Your task to perform on an android device: Open settings on Google Maps Image 0: 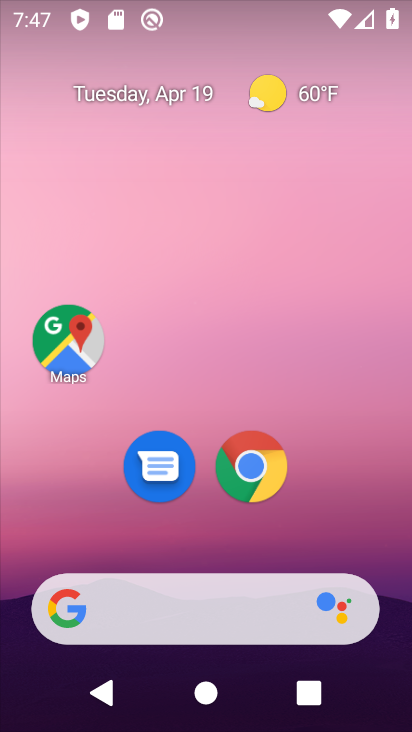
Step 0: drag from (270, 539) to (330, 175)
Your task to perform on an android device: Open settings on Google Maps Image 1: 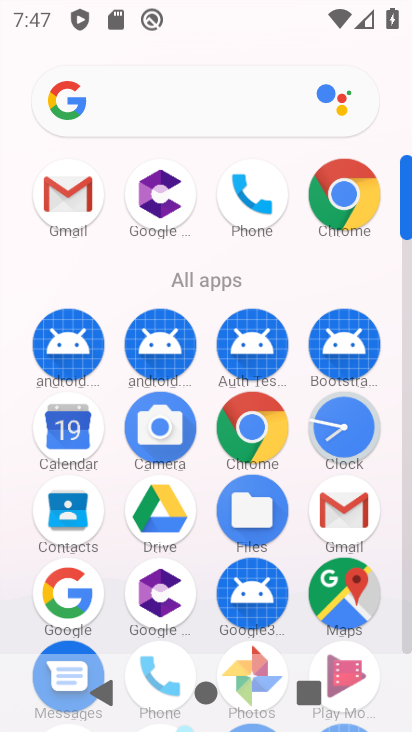
Step 1: click (348, 593)
Your task to perform on an android device: Open settings on Google Maps Image 2: 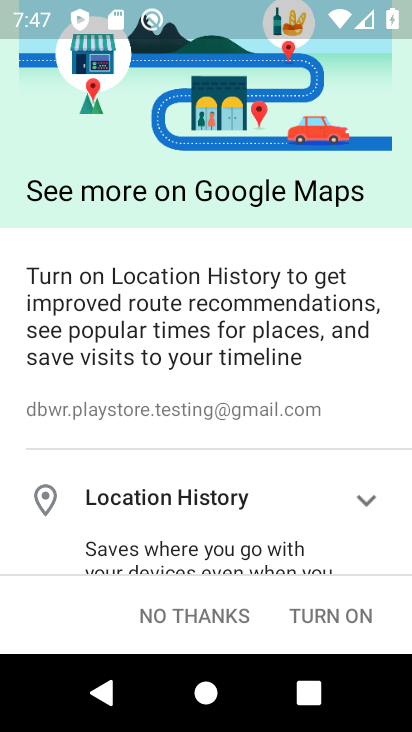
Step 2: click (179, 612)
Your task to perform on an android device: Open settings on Google Maps Image 3: 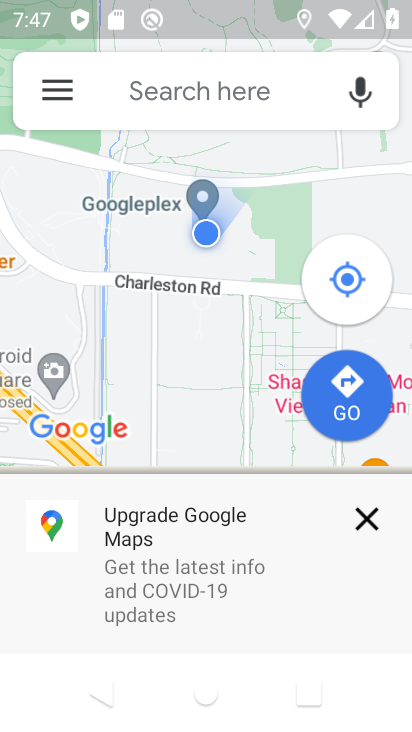
Step 3: click (51, 90)
Your task to perform on an android device: Open settings on Google Maps Image 4: 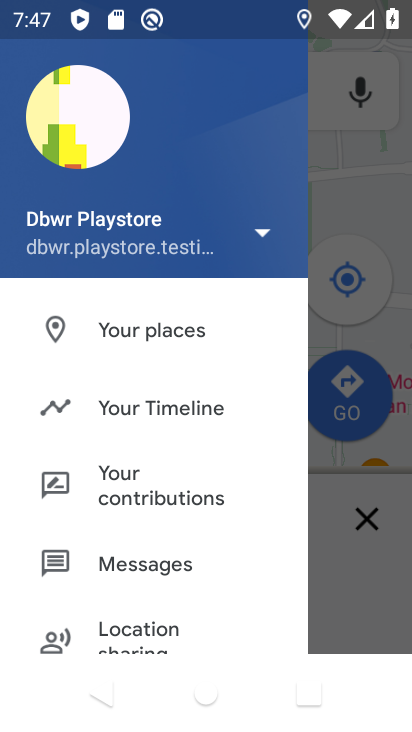
Step 4: drag from (177, 600) to (217, 97)
Your task to perform on an android device: Open settings on Google Maps Image 5: 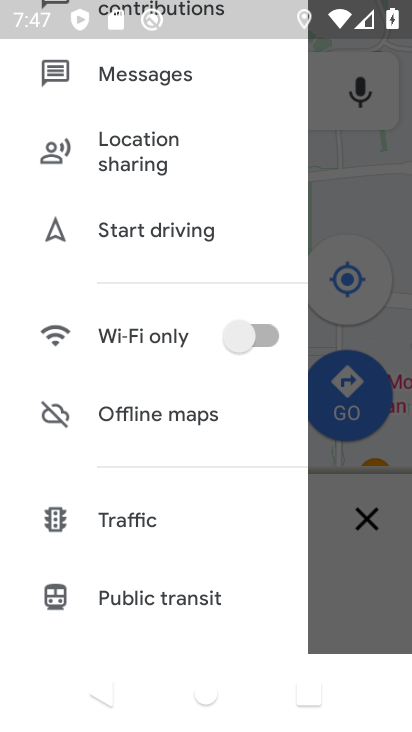
Step 5: drag from (146, 538) to (147, 73)
Your task to perform on an android device: Open settings on Google Maps Image 6: 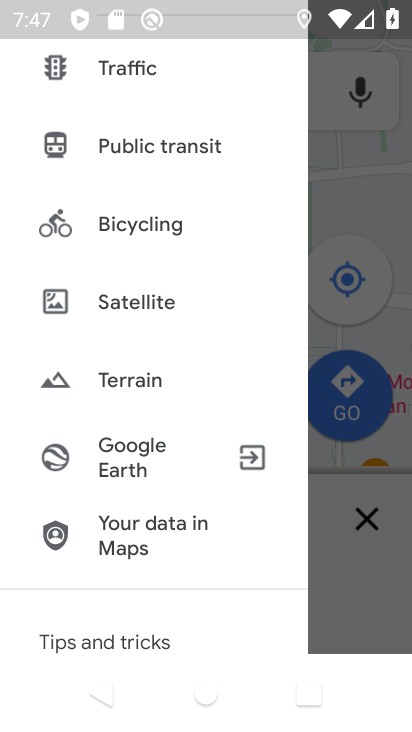
Step 6: drag from (101, 493) to (158, 130)
Your task to perform on an android device: Open settings on Google Maps Image 7: 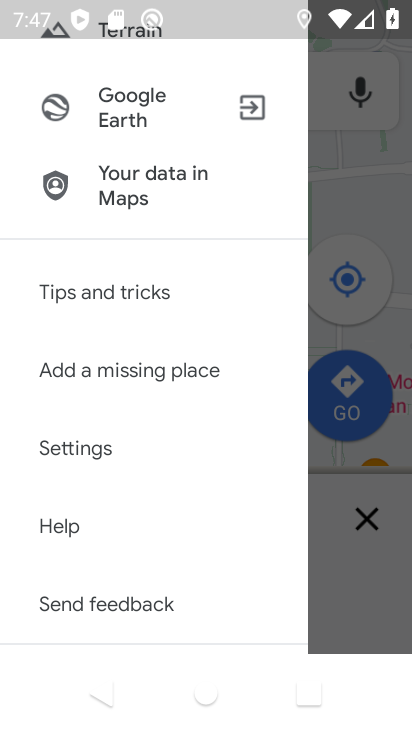
Step 7: click (105, 441)
Your task to perform on an android device: Open settings on Google Maps Image 8: 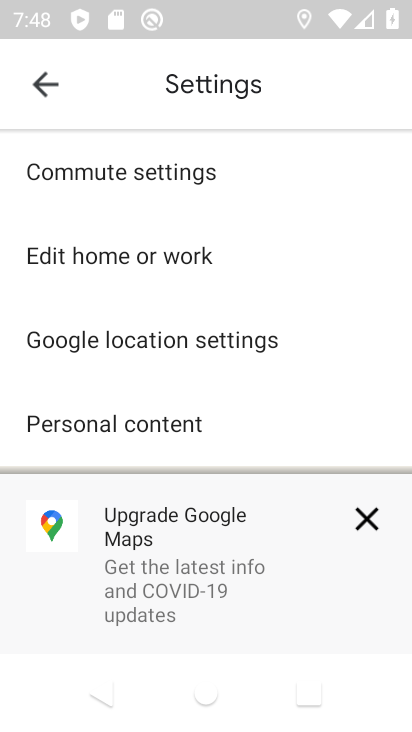
Step 8: click (386, 515)
Your task to perform on an android device: Open settings on Google Maps Image 9: 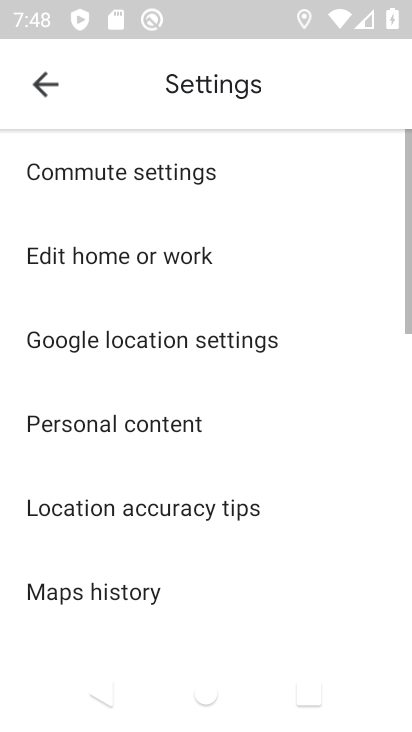
Step 9: task complete